Your task to perform on an android device: turn on sleep mode Image 0: 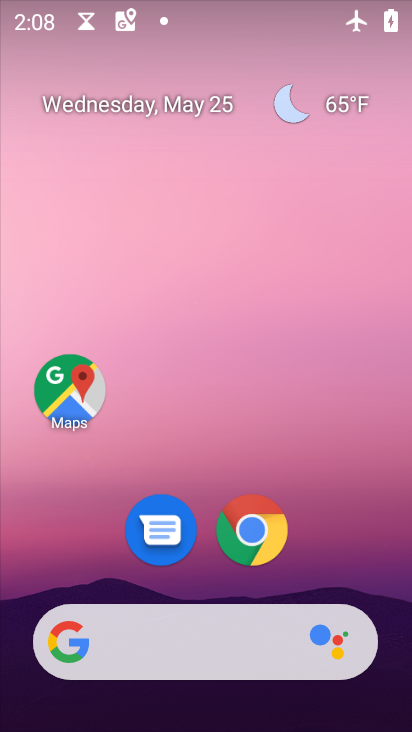
Step 0: drag from (293, 503) to (283, 237)
Your task to perform on an android device: turn on sleep mode Image 1: 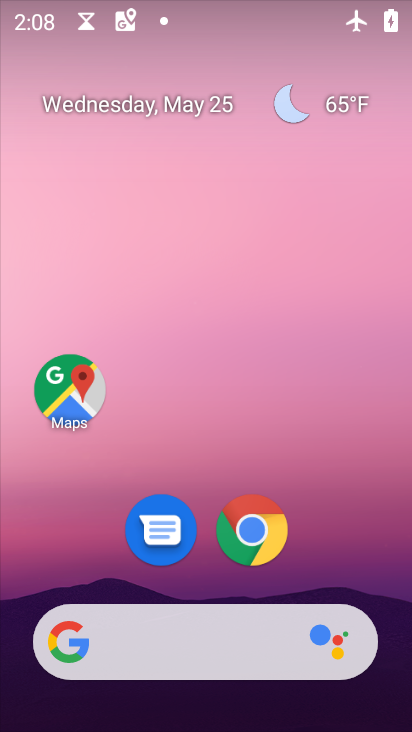
Step 1: drag from (281, 378) to (278, 169)
Your task to perform on an android device: turn on sleep mode Image 2: 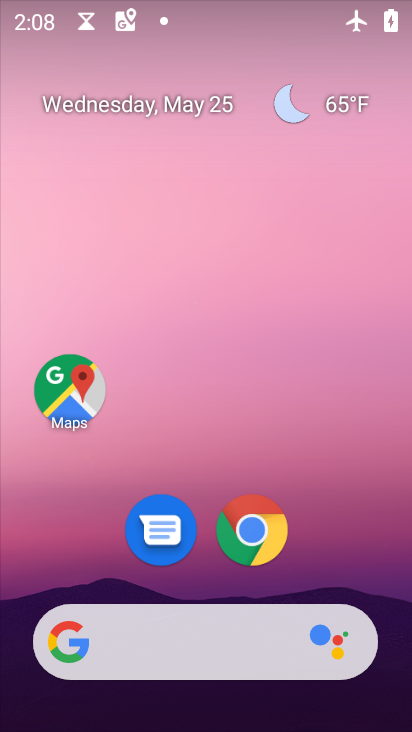
Step 2: drag from (183, 487) to (205, 261)
Your task to perform on an android device: turn on sleep mode Image 3: 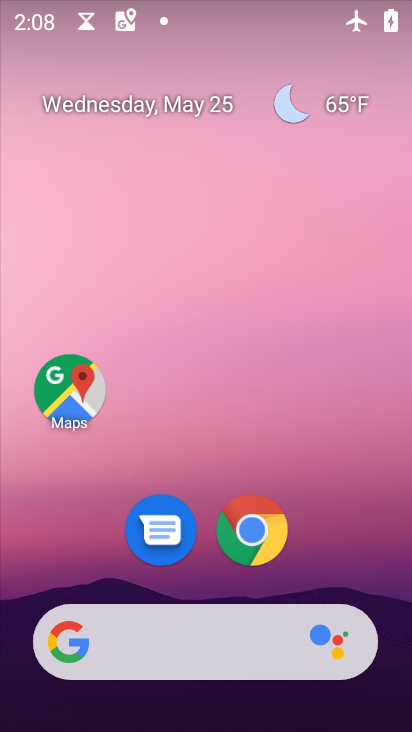
Step 3: drag from (223, 503) to (214, 222)
Your task to perform on an android device: turn on sleep mode Image 4: 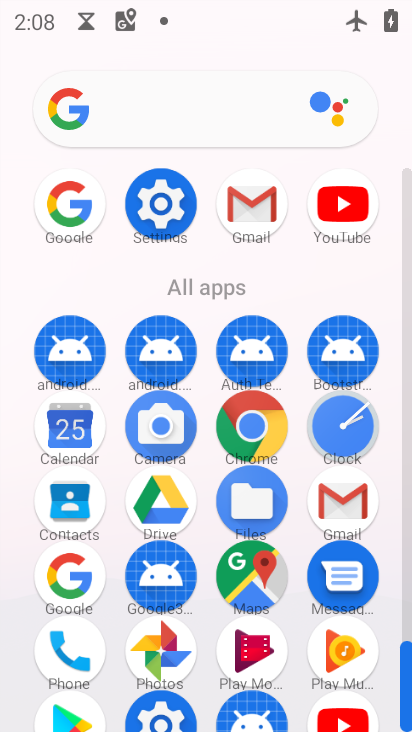
Step 4: click (157, 216)
Your task to perform on an android device: turn on sleep mode Image 5: 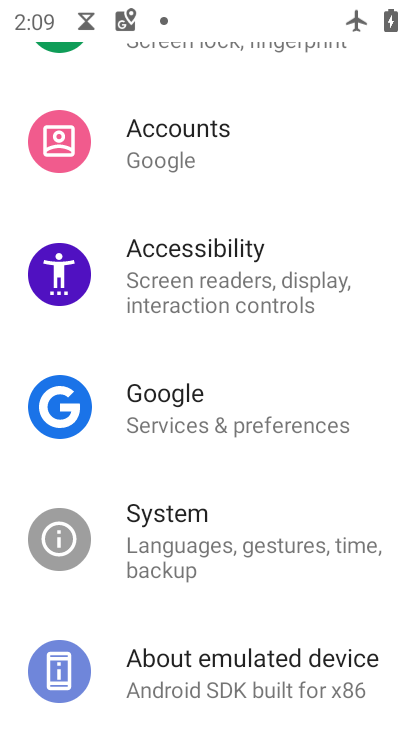
Step 5: task complete